Your task to perform on an android device: toggle priority inbox in the gmail app Image 0: 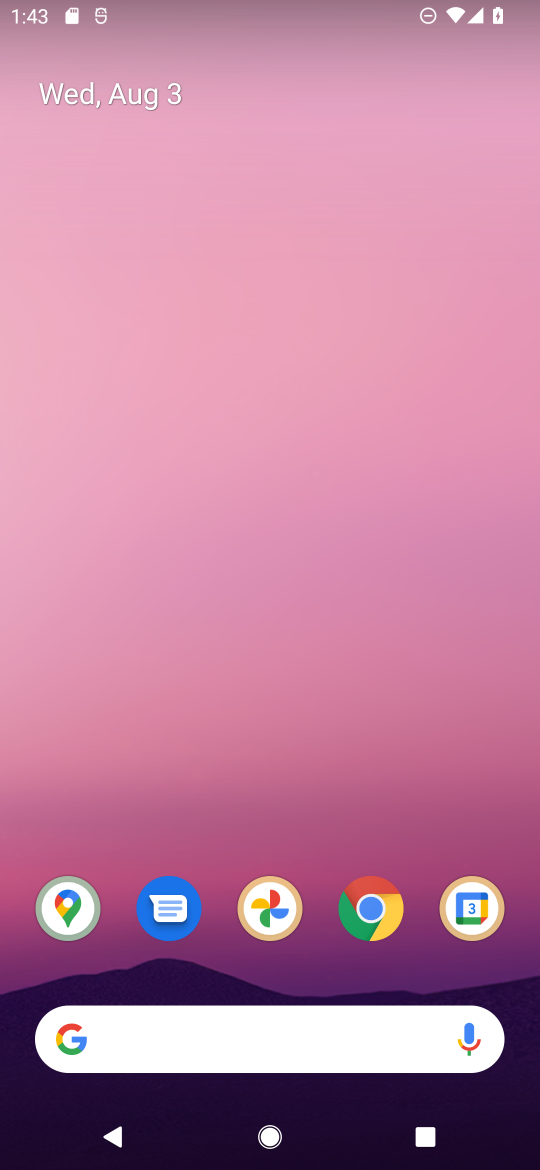
Step 0: drag from (242, 856) to (238, 494)
Your task to perform on an android device: toggle priority inbox in the gmail app Image 1: 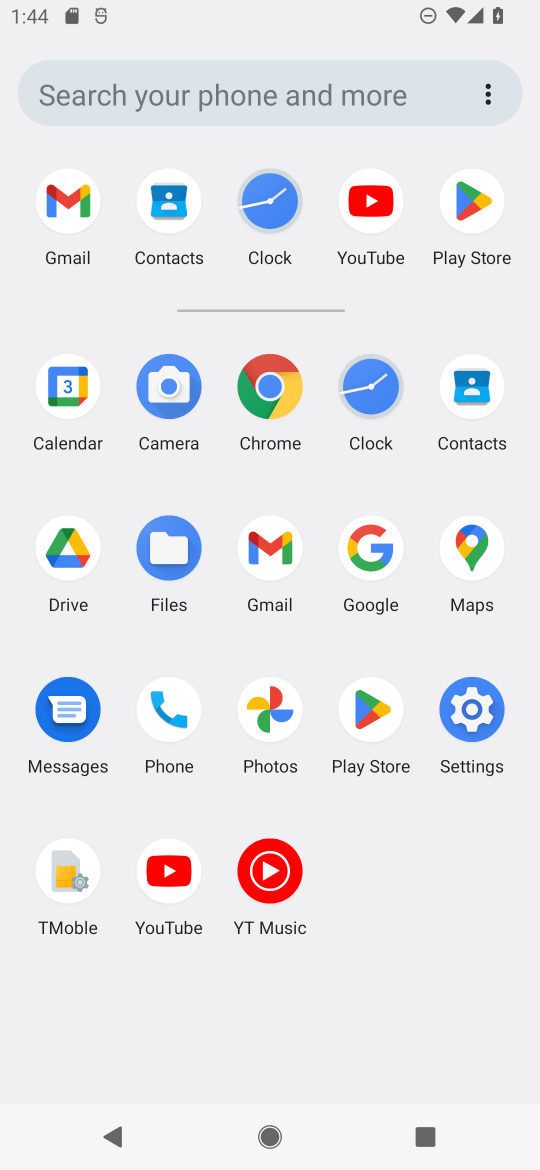
Step 1: click (260, 537)
Your task to perform on an android device: toggle priority inbox in the gmail app Image 2: 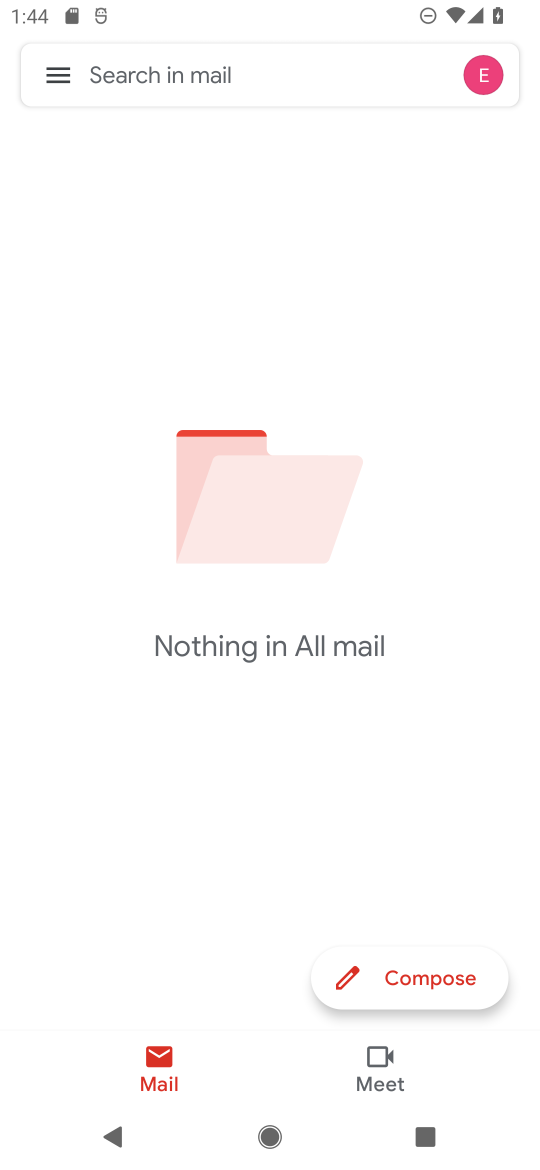
Step 2: click (41, 81)
Your task to perform on an android device: toggle priority inbox in the gmail app Image 3: 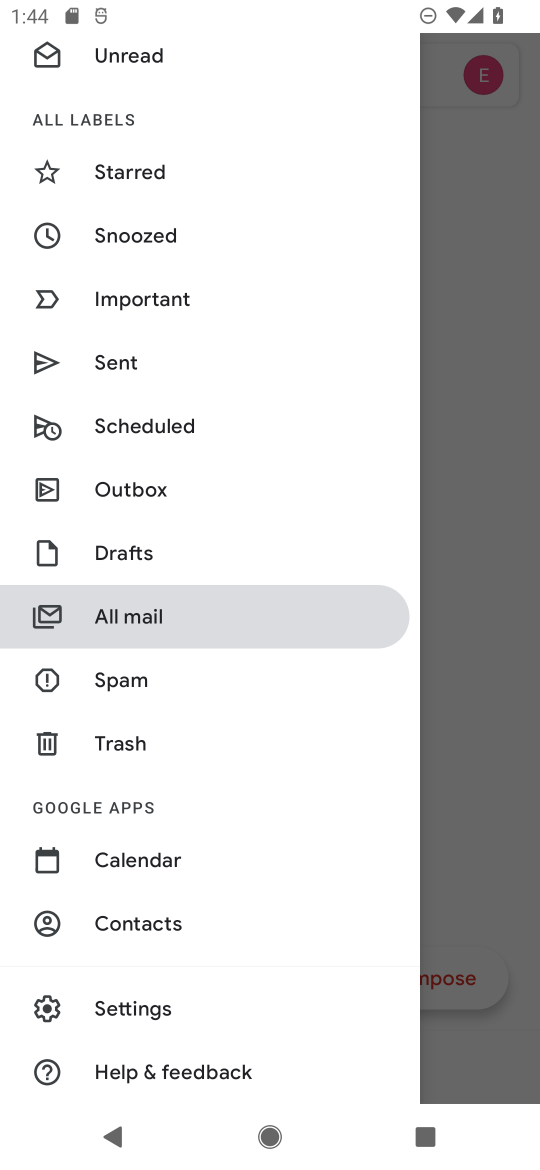
Step 3: click (142, 1001)
Your task to perform on an android device: toggle priority inbox in the gmail app Image 4: 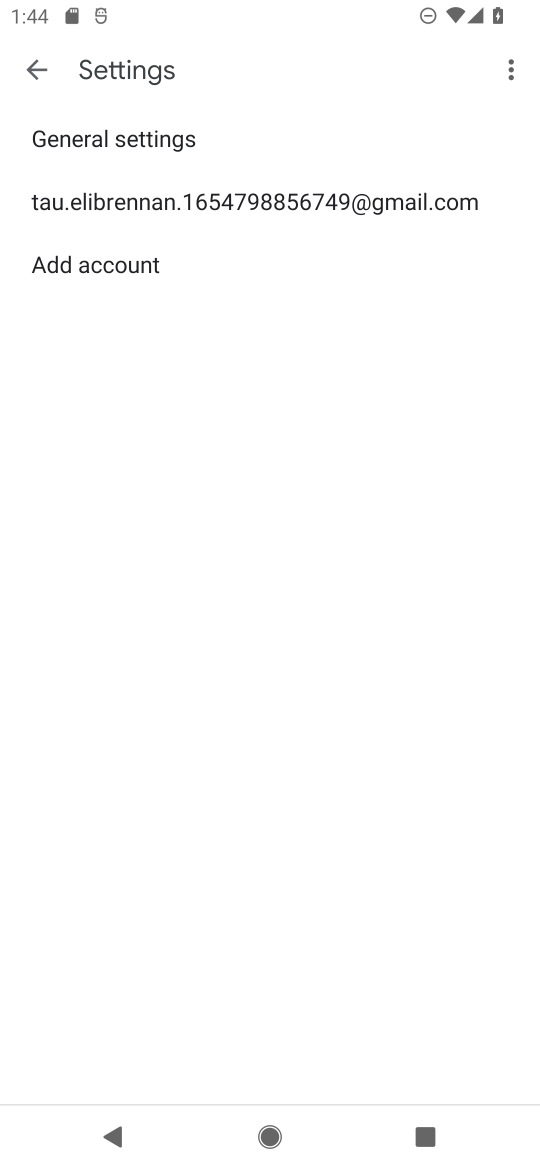
Step 4: click (233, 202)
Your task to perform on an android device: toggle priority inbox in the gmail app Image 5: 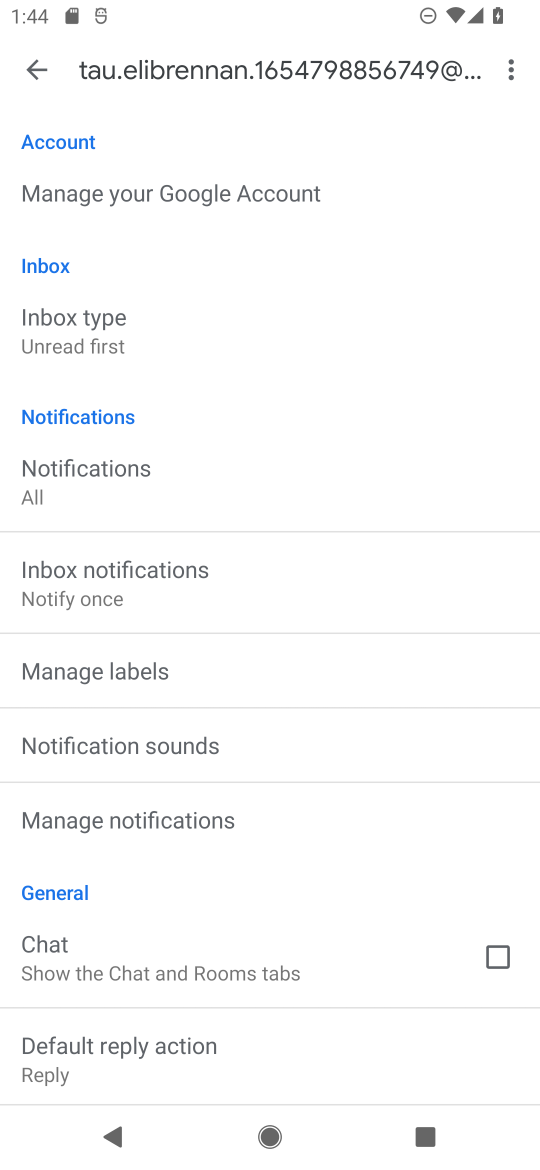
Step 5: click (74, 344)
Your task to perform on an android device: toggle priority inbox in the gmail app Image 6: 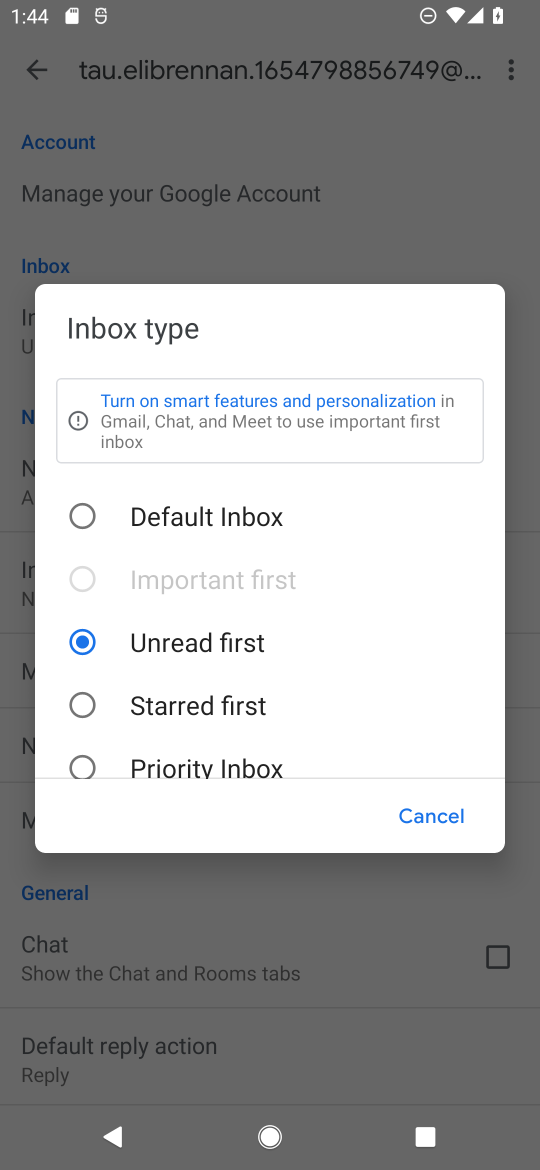
Step 6: click (86, 756)
Your task to perform on an android device: toggle priority inbox in the gmail app Image 7: 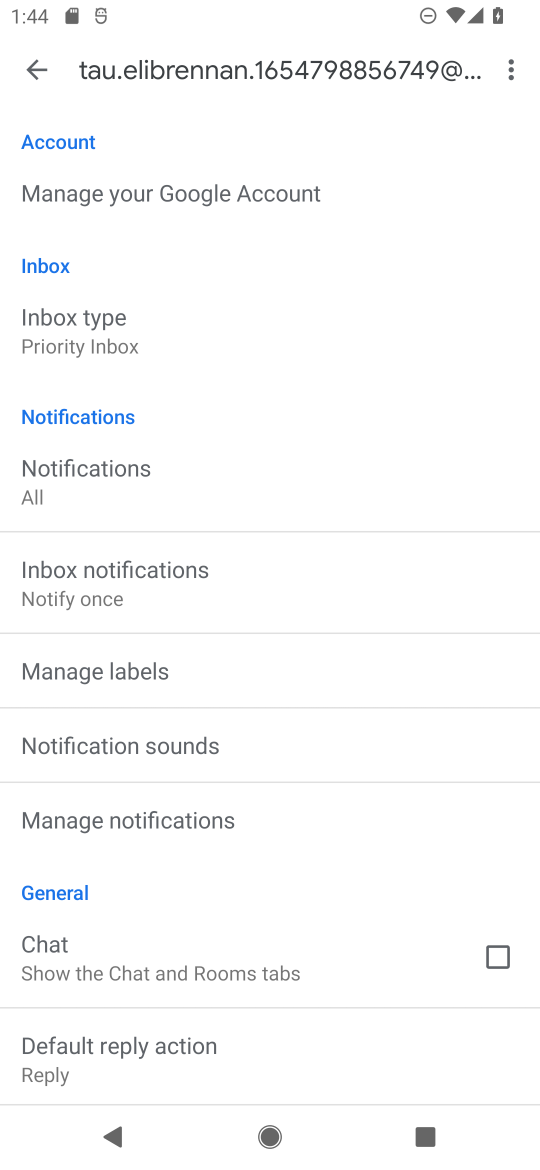
Step 7: task complete